Your task to perform on an android device: Open location settings Image 0: 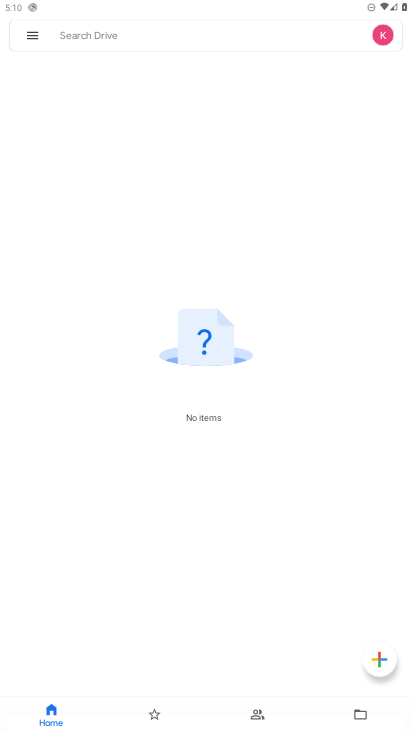
Step 0: press home button
Your task to perform on an android device: Open location settings Image 1: 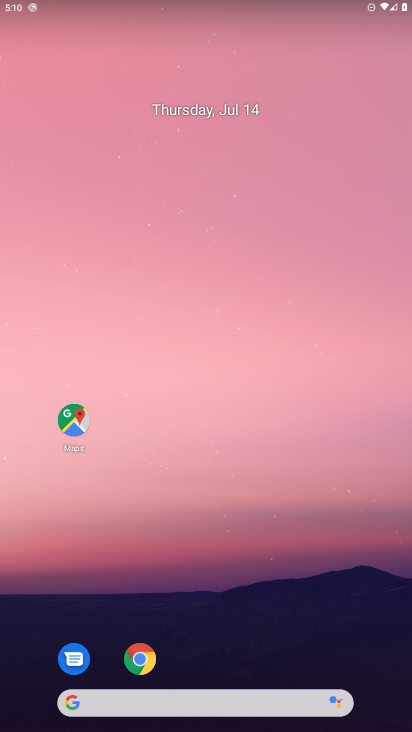
Step 1: drag from (227, 668) to (255, 163)
Your task to perform on an android device: Open location settings Image 2: 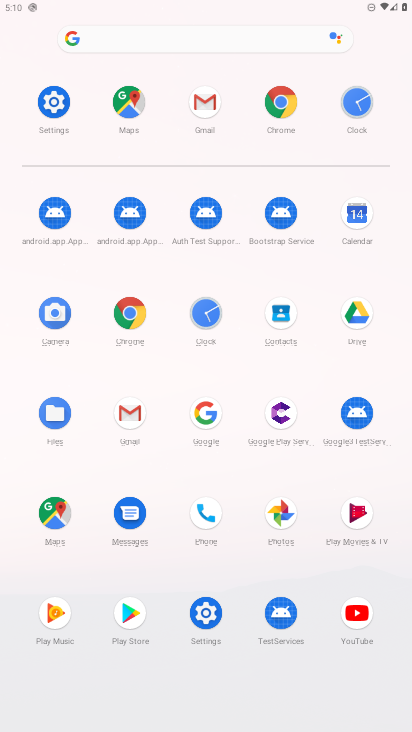
Step 2: click (53, 96)
Your task to perform on an android device: Open location settings Image 3: 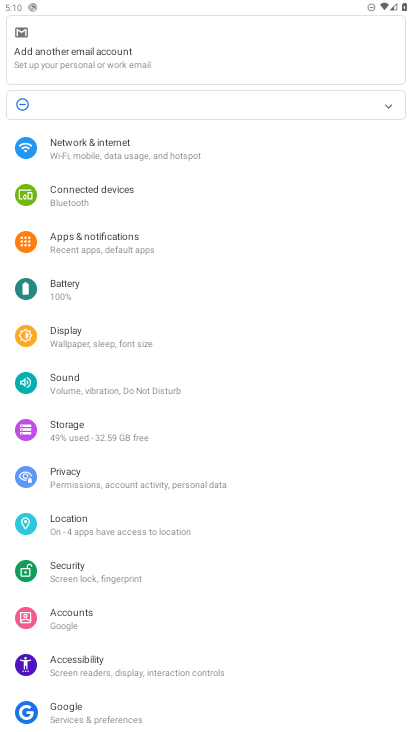
Step 3: click (91, 520)
Your task to perform on an android device: Open location settings Image 4: 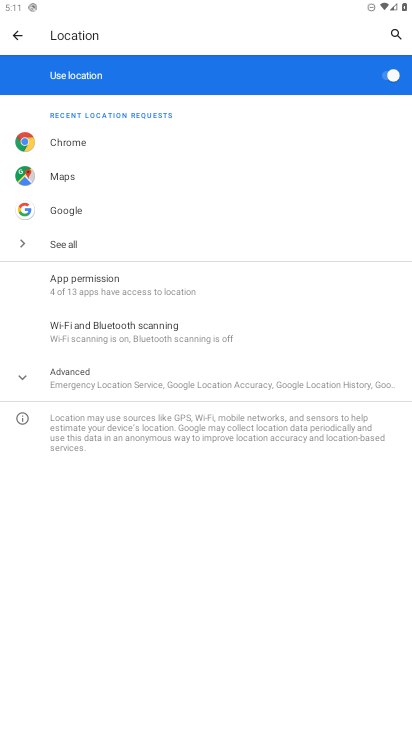
Step 4: click (49, 371)
Your task to perform on an android device: Open location settings Image 5: 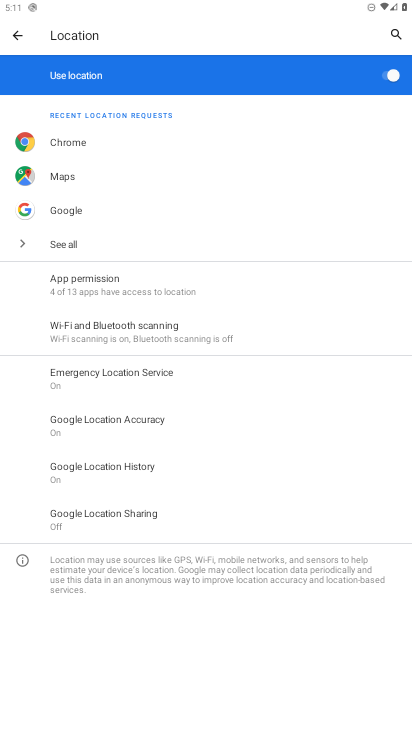
Step 5: task complete